Your task to perform on an android device: delete location history Image 0: 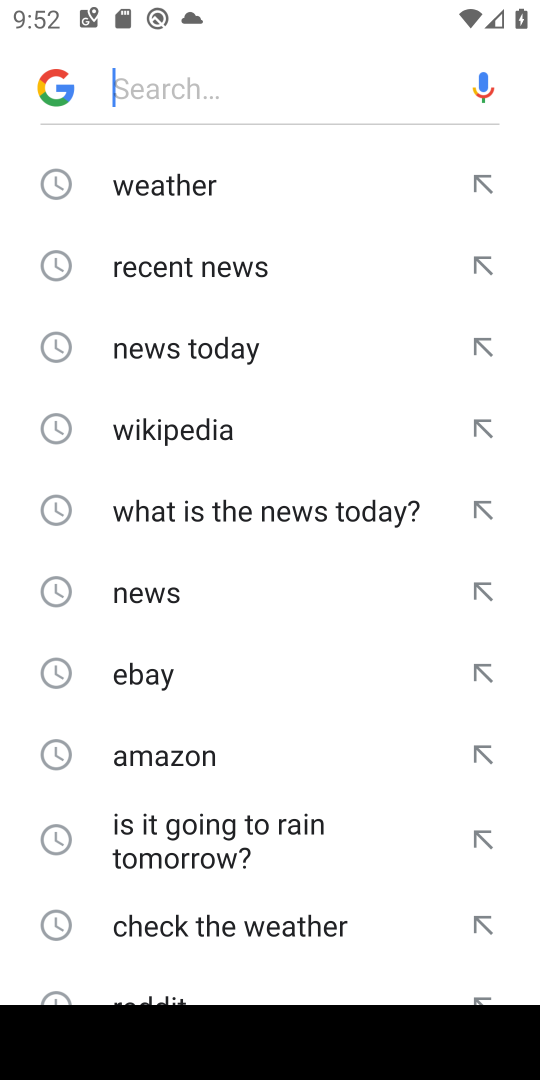
Step 0: press home button
Your task to perform on an android device: delete location history Image 1: 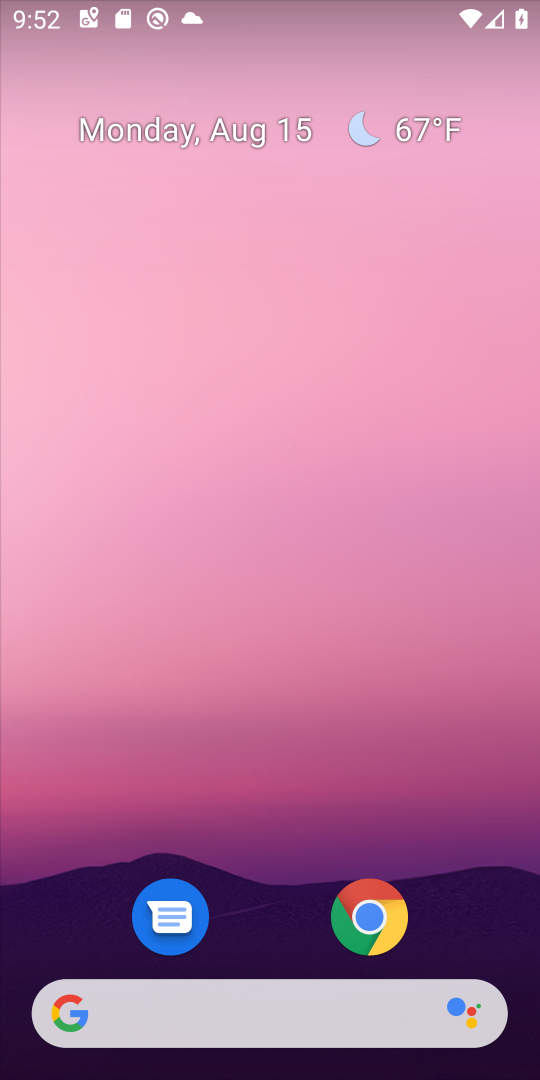
Step 1: drag from (286, 757) to (287, 1)
Your task to perform on an android device: delete location history Image 2: 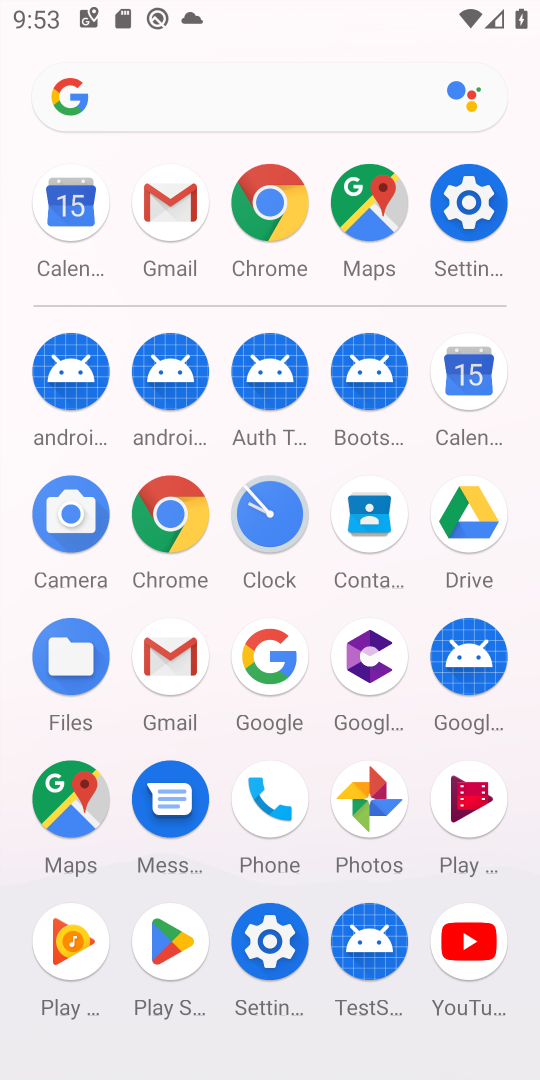
Step 2: click (368, 193)
Your task to perform on an android device: delete location history Image 3: 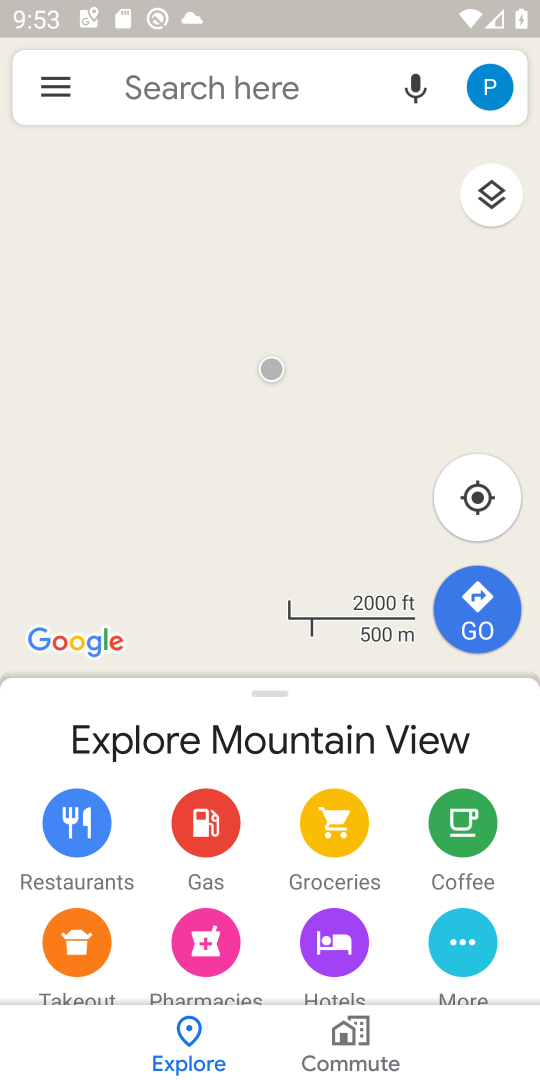
Step 3: click (60, 90)
Your task to perform on an android device: delete location history Image 4: 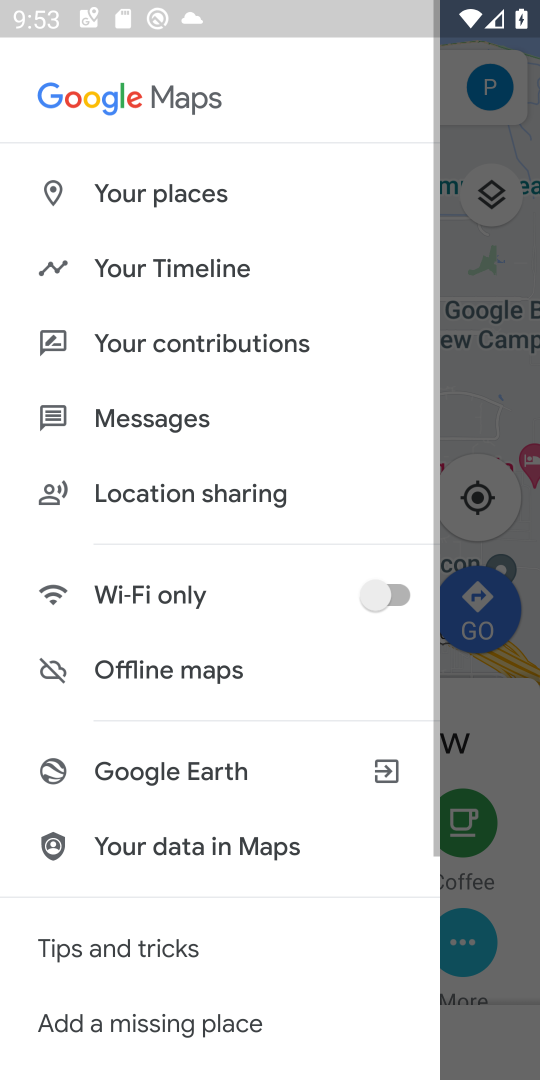
Step 4: click (157, 260)
Your task to perform on an android device: delete location history Image 5: 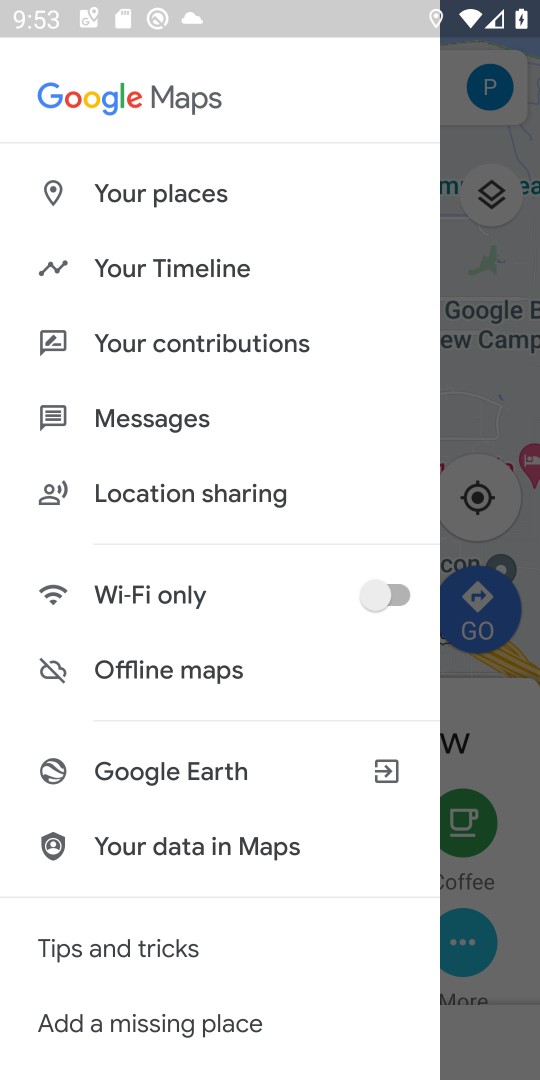
Step 5: click (310, 269)
Your task to perform on an android device: delete location history Image 6: 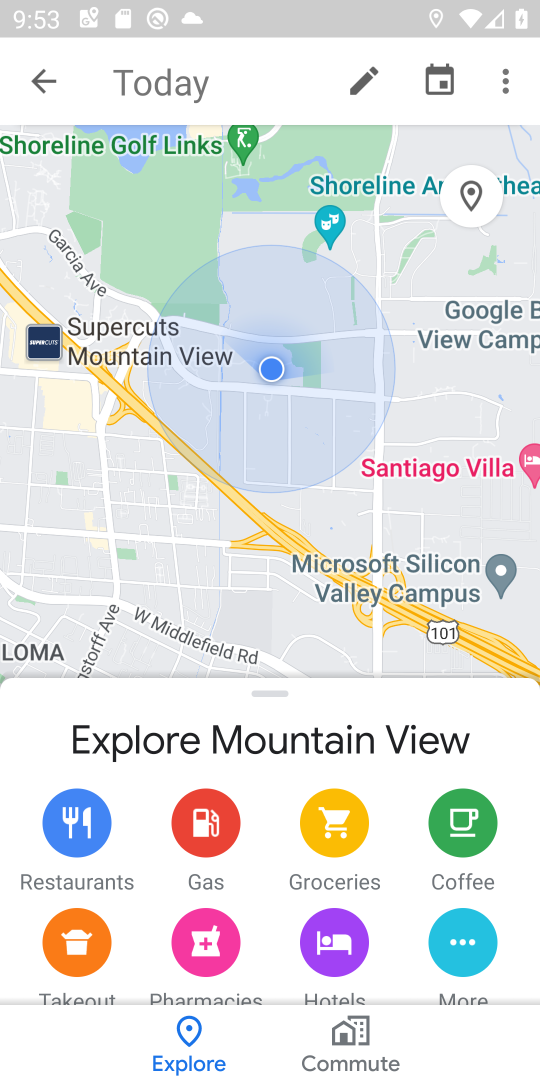
Step 6: click (243, 271)
Your task to perform on an android device: delete location history Image 7: 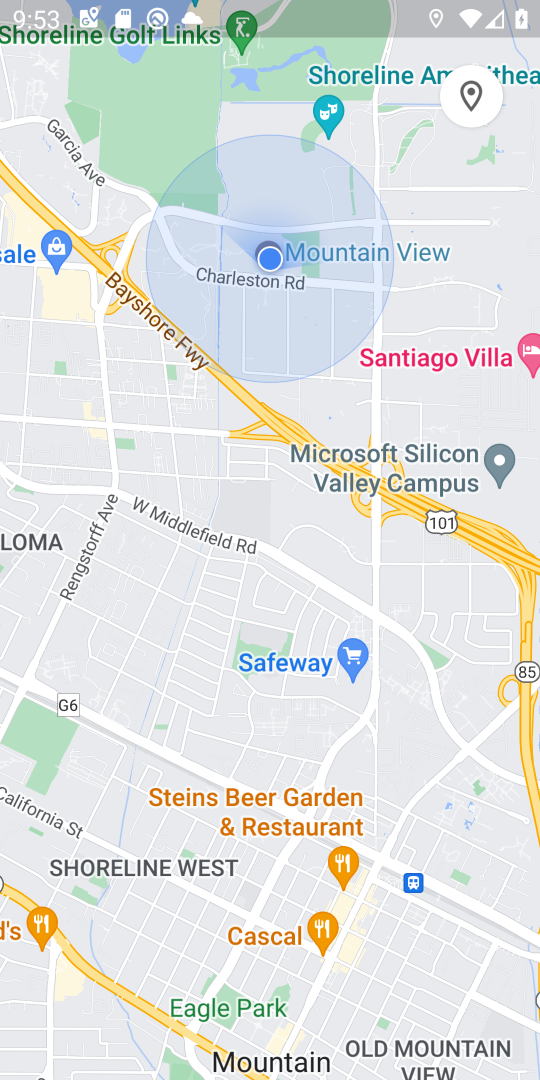
Step 7: press back button
Your task to perform on an android device: delete location history Image 8: 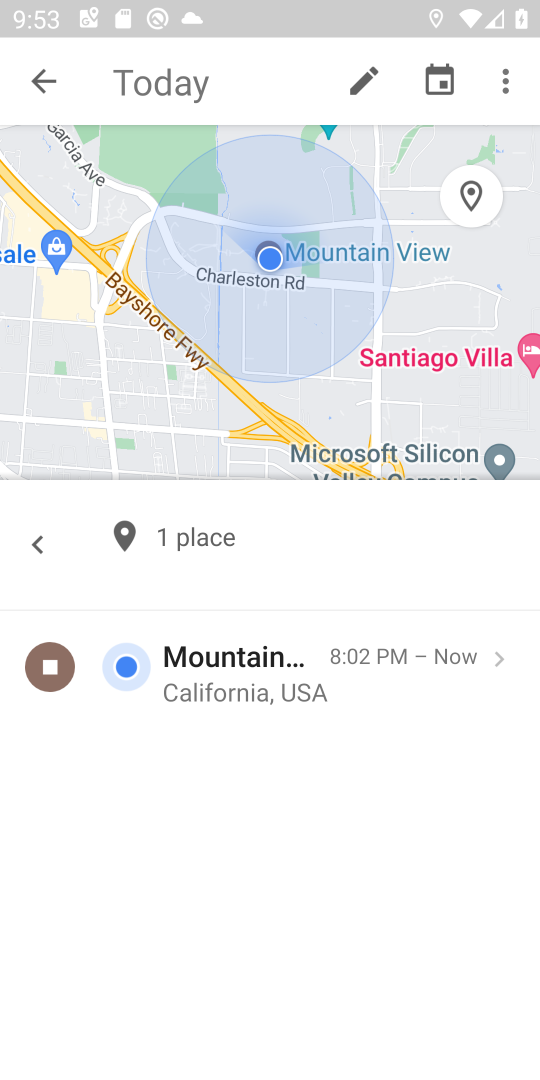
Step 8: click (499, 75)
Your task to perform on an android device: delete location history Image 9: 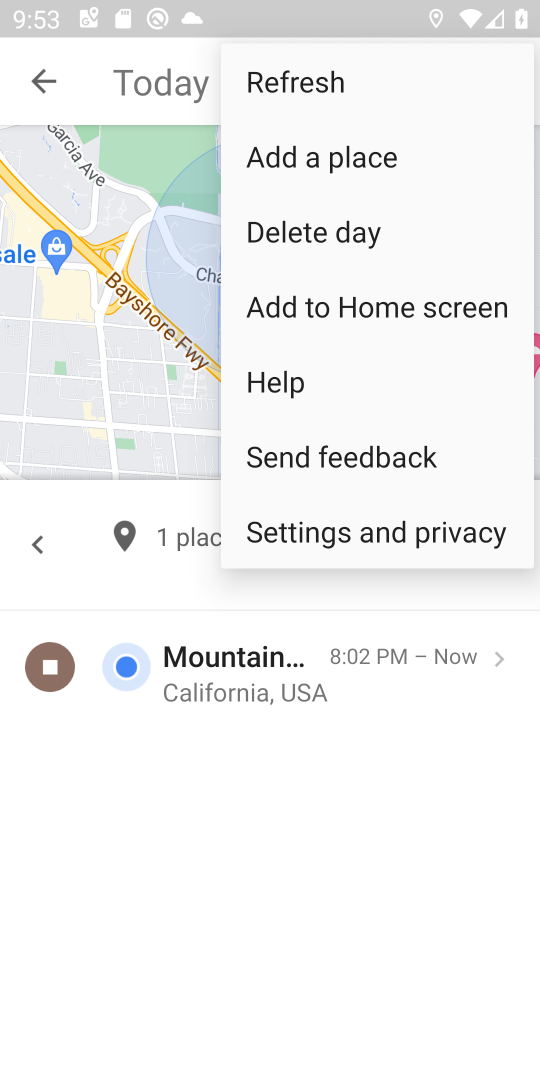
Step 9: click (396, 529)
Your task to perform on an android device: delete location history Image 10: 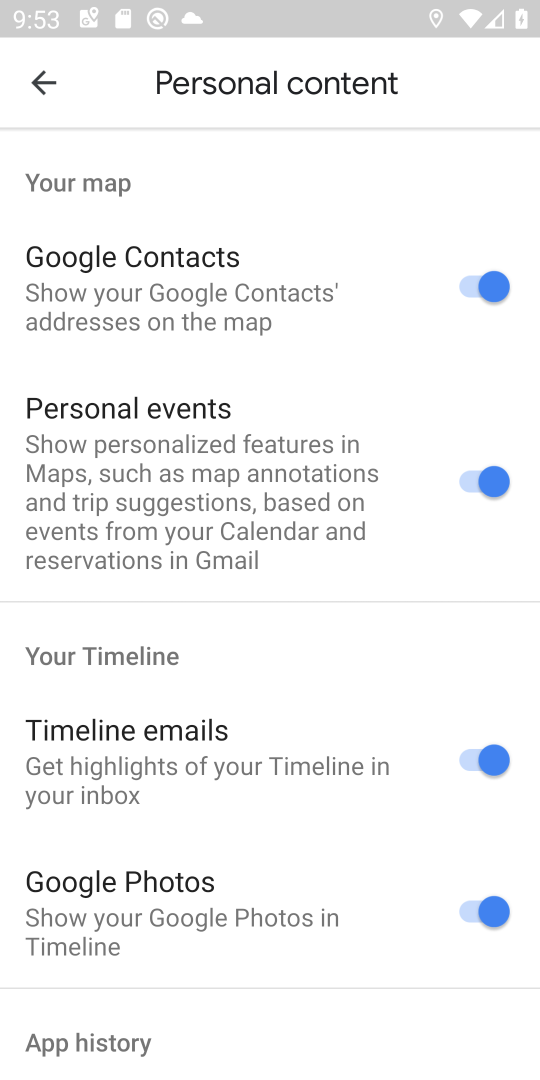
Step 10: drag from (257, 846) to (265, 7)
Your task to perform on an android device: delete location history Image 11: 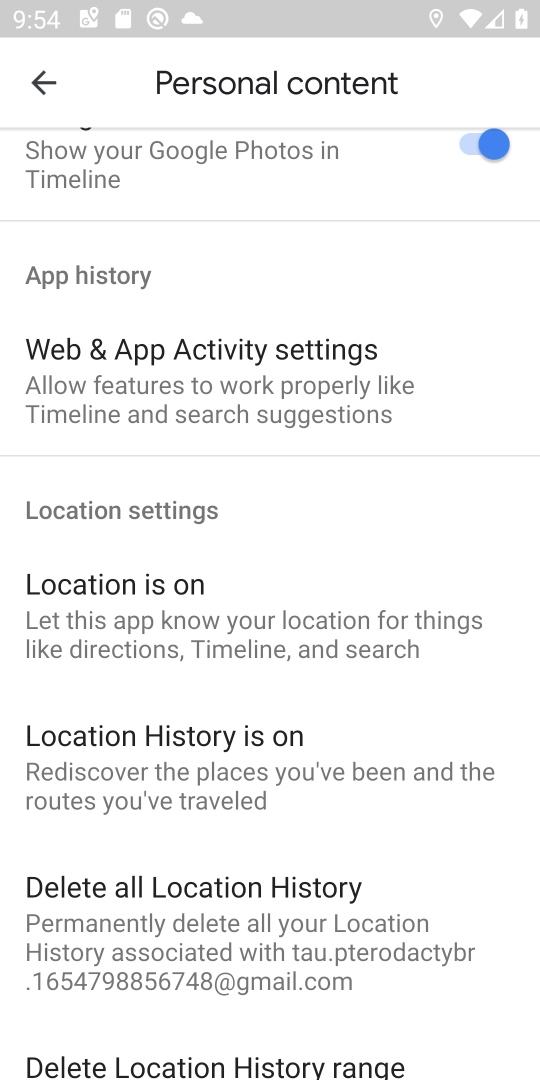
Step 11: click (303, 909)
Your task to perform on an android device: delete location history Image 12: 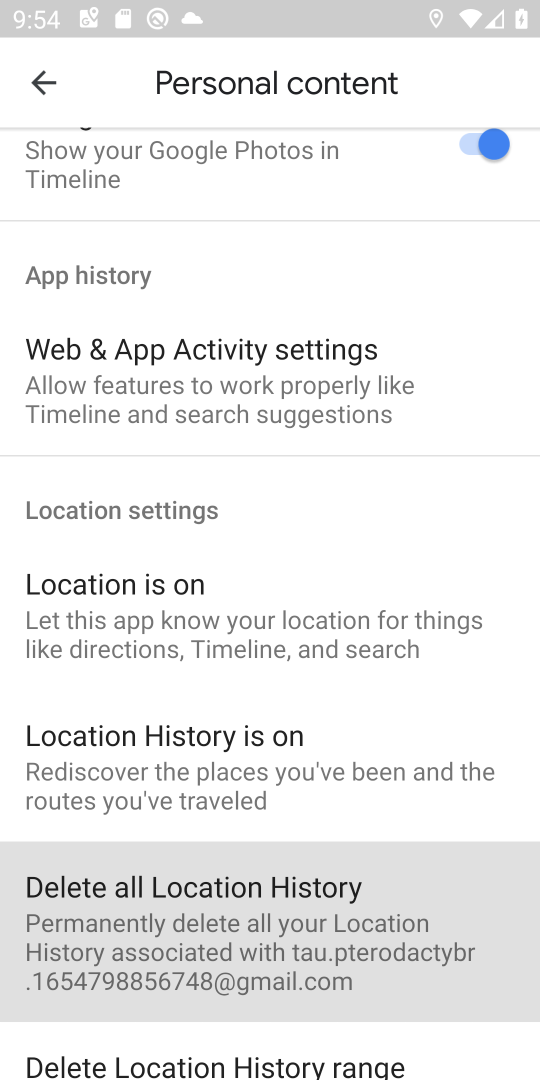
Step 12: click (306, 921)
Your task to perform on an android device: delete location history Image 13: 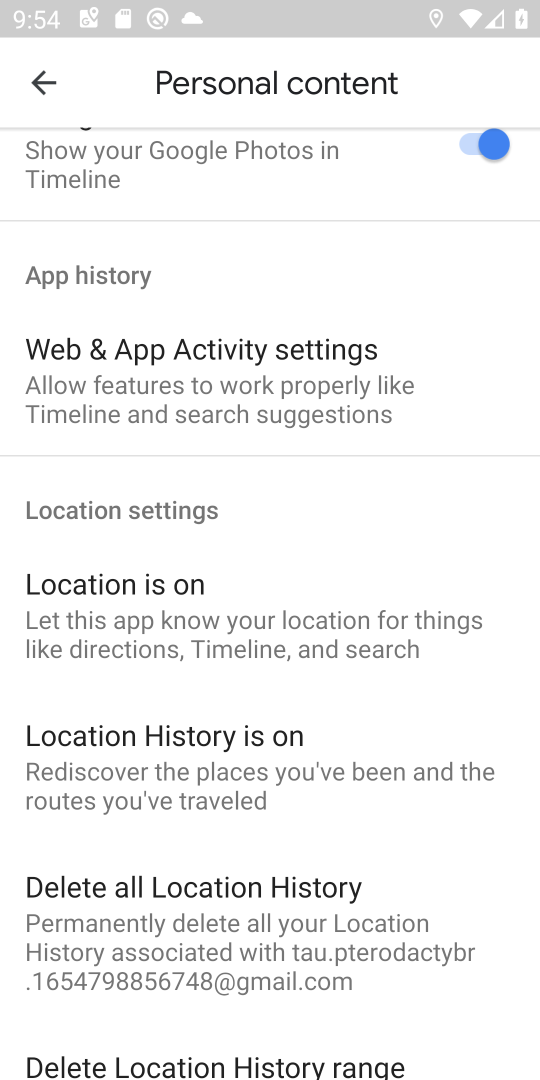
Step 13: click (297, 935)
Your task to perform on an android device: delete location history Image 14: 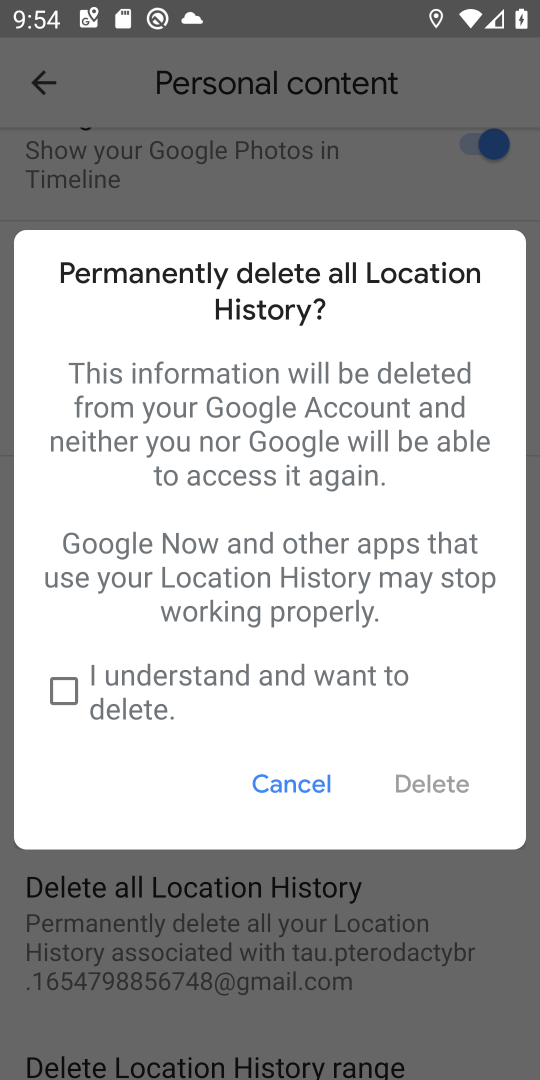
Step 14: click (60, 686)
Your task to perform on an android device: delete location history Image 15: 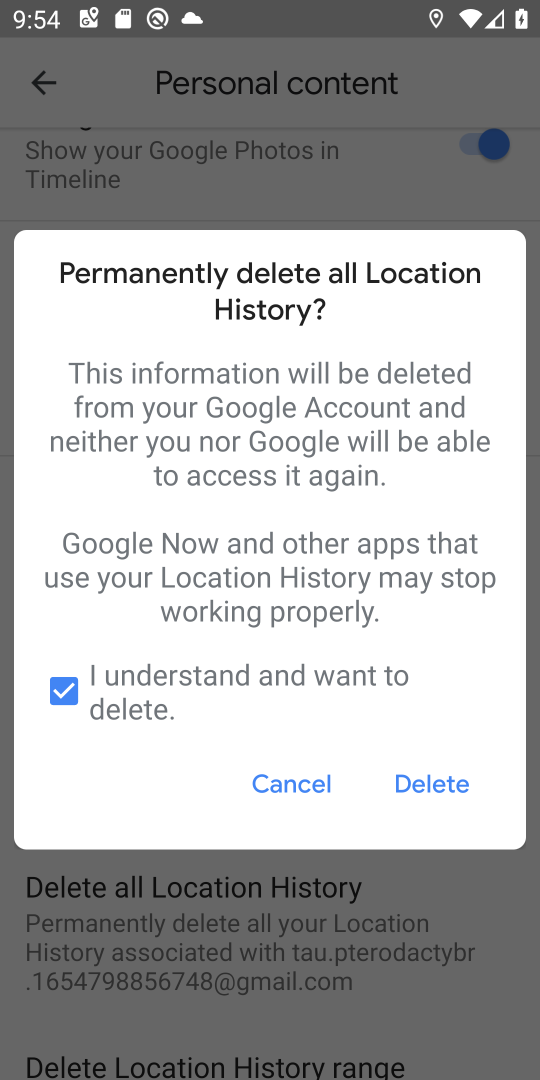
Step 15: click (453, 778)
Your task to perform on an android device: delete location history Image 16: 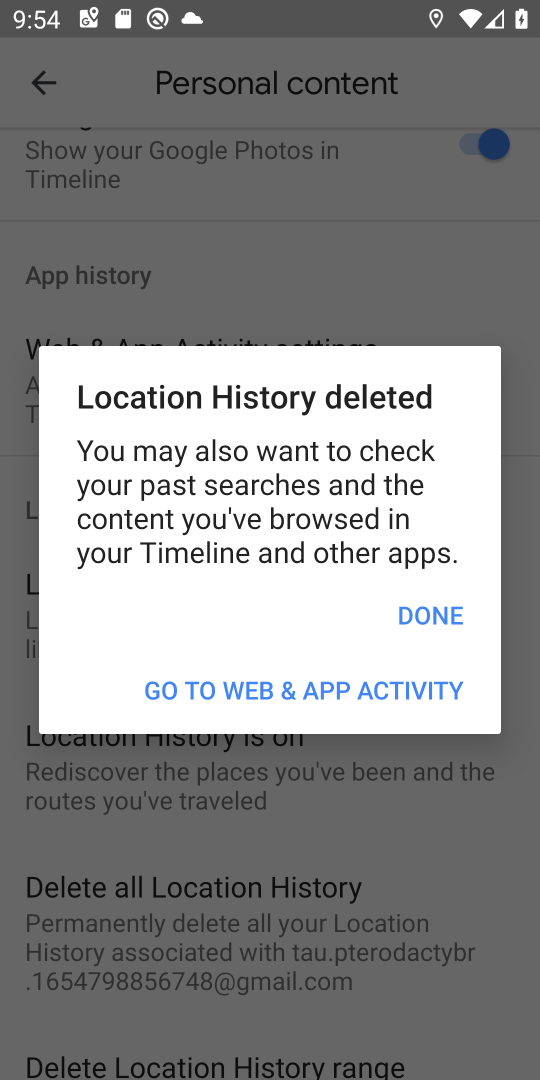
Step 16: click (443, 611)
Your task to perform on an android device: delete location history Image 17: 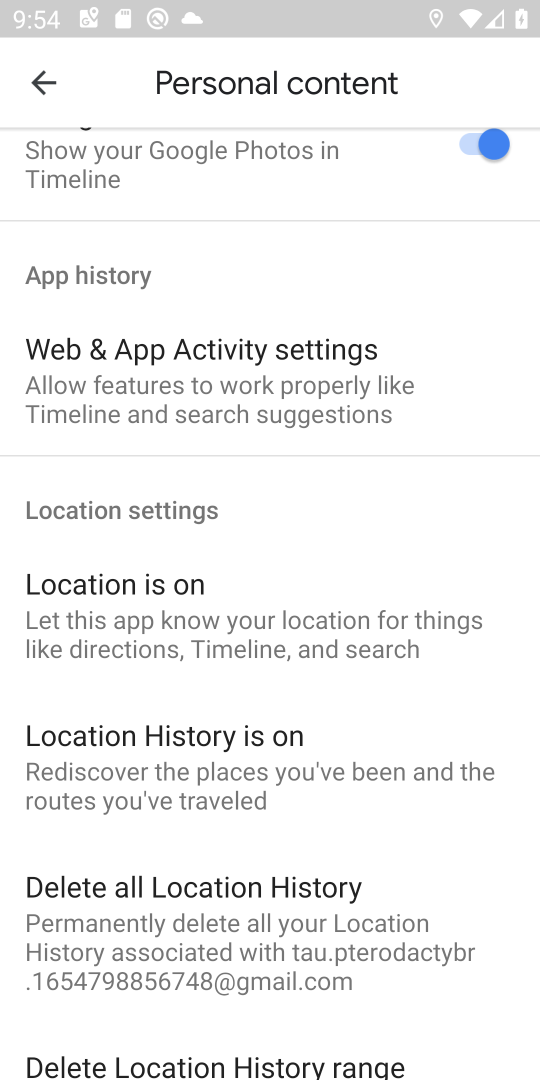
Step 17: task complete